Your task to perform on an android device: open app "Google Maps" Image 0: 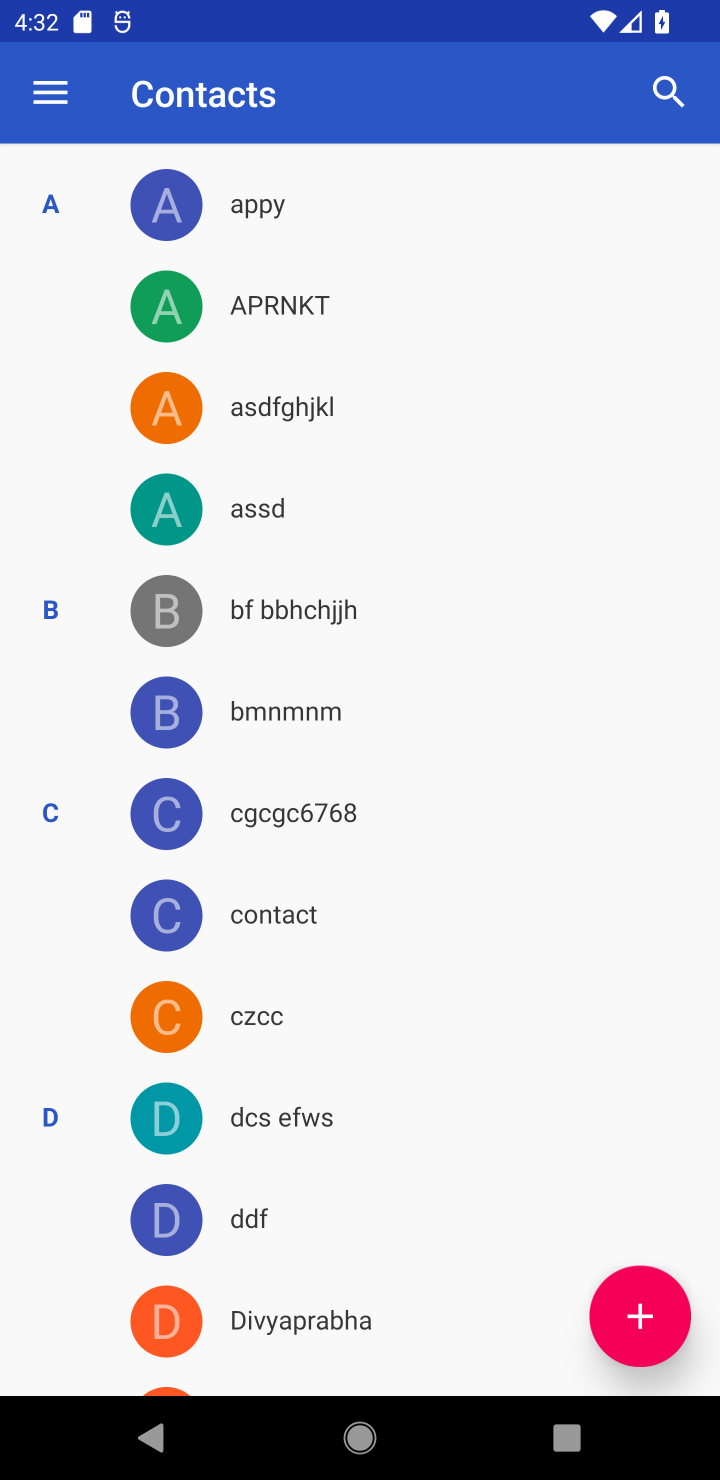
Step 0: press home button
Your task to perform on an android device: open app "Google Maps" Image 1: 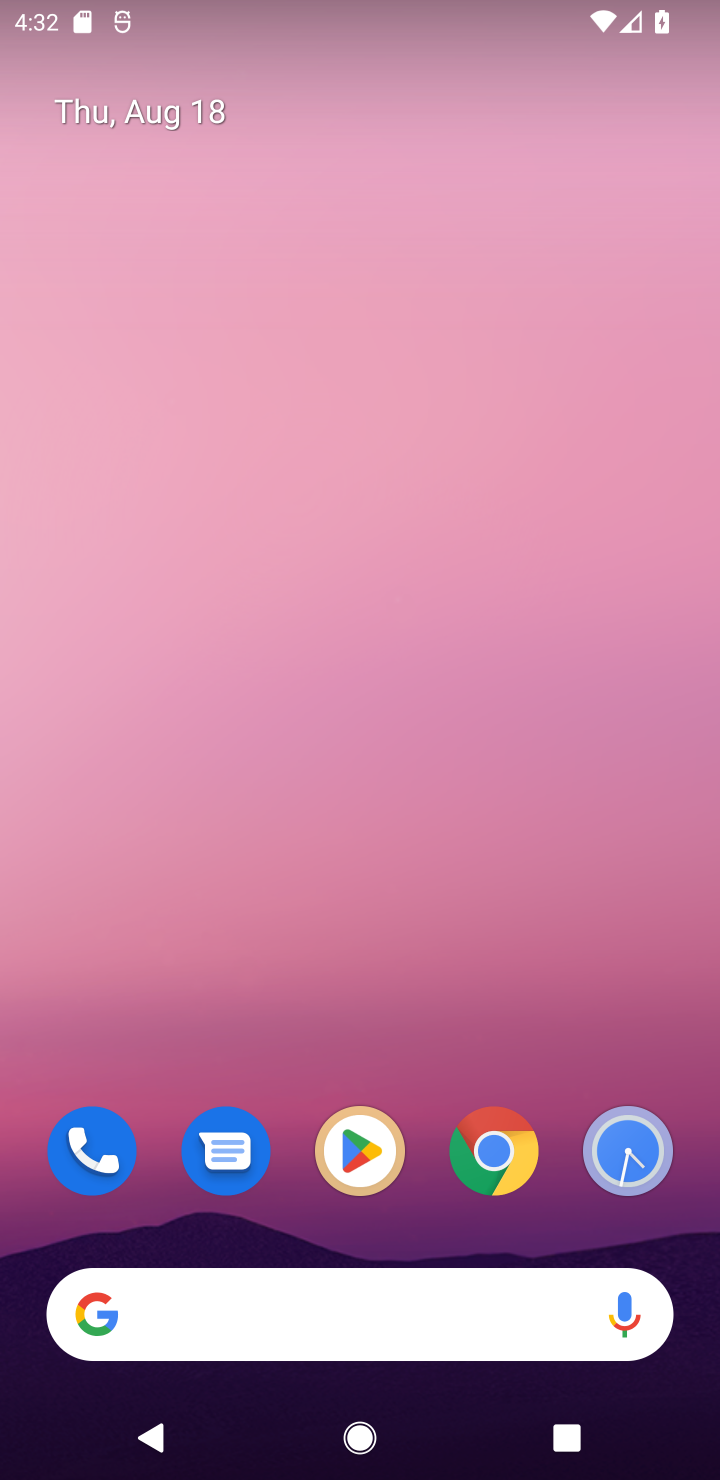
Step 1: drag from (425, 1230) to (390, 309)
Your task to perform on an android device: open app "Google Maps" Image 2: 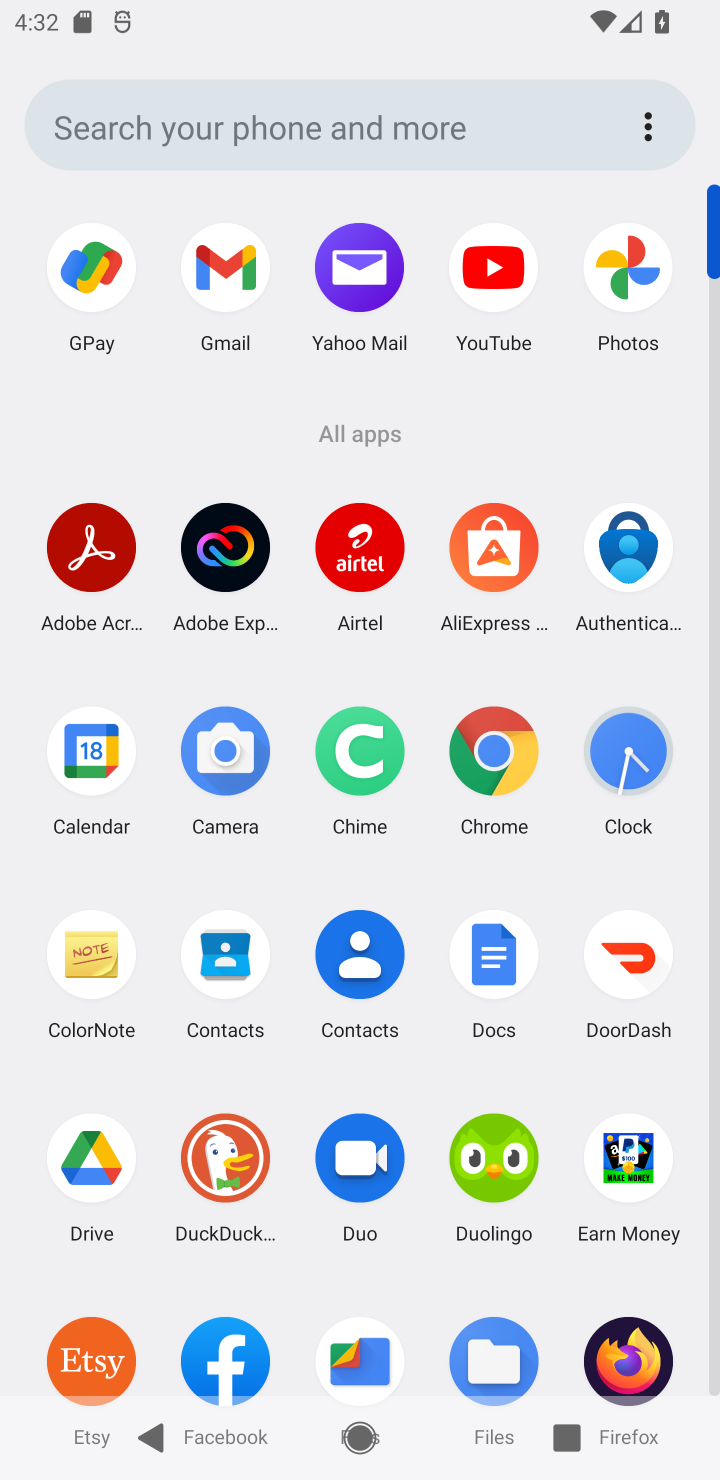
Step 2: drag from (521, 1104) to (542, 159)
Your task to perform on an android device: open app "Google Maps" Image 3: 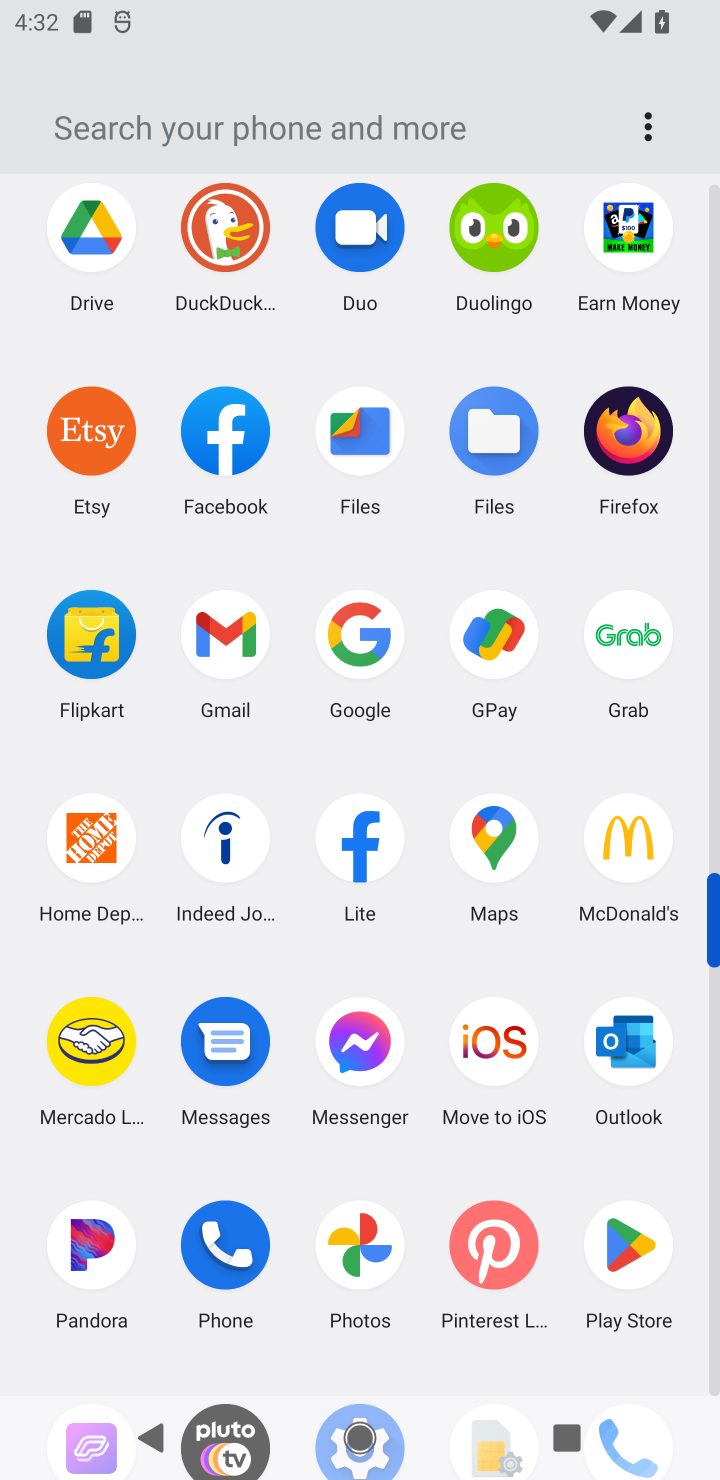
Step 3: drag from (425, 1333) to (433, 913)
Your task to perform on an android device: open app "Google Maps" Image 4: 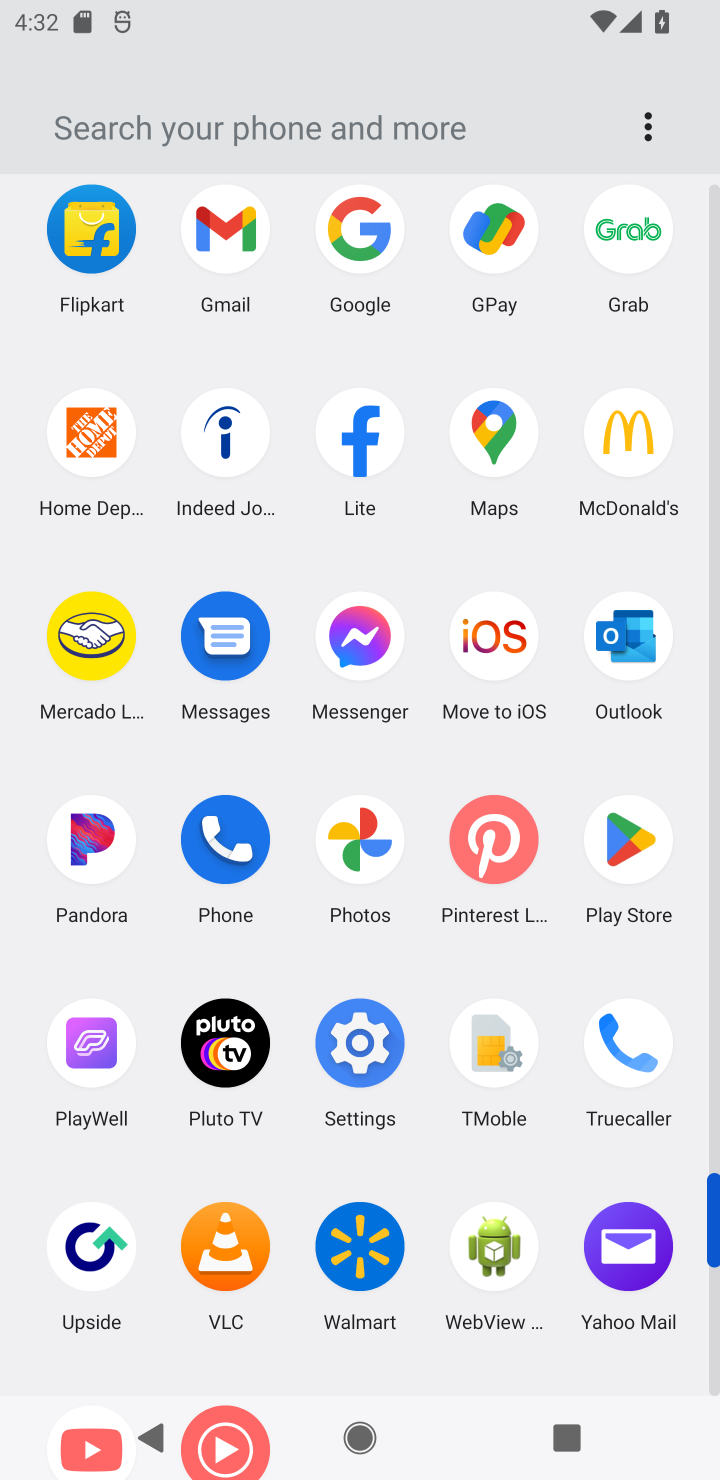
Step 4: click (489, 482)
Your task to perform on an android device: open app "Google Maps" Image 5: 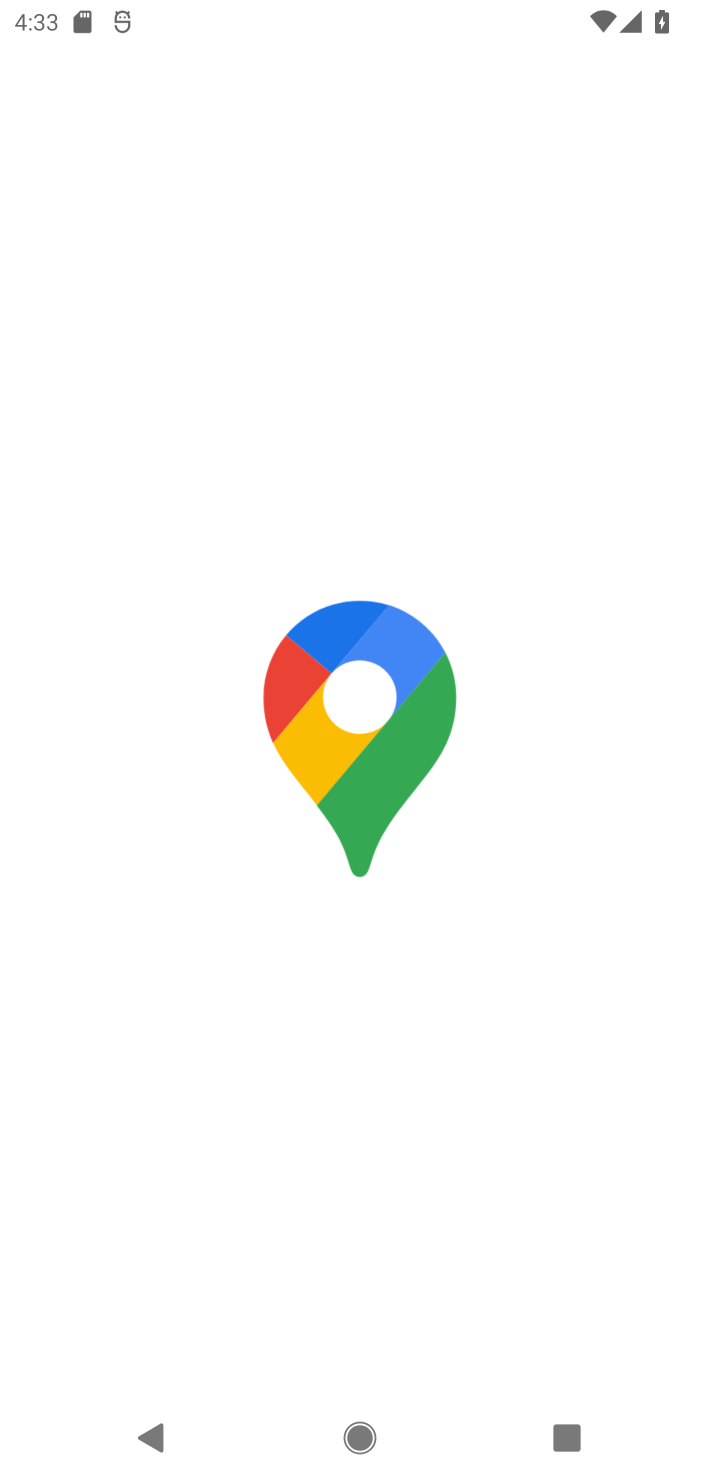
Step 5: task complete